Your task to perform on an android device: Go to privacy settings Image 0: 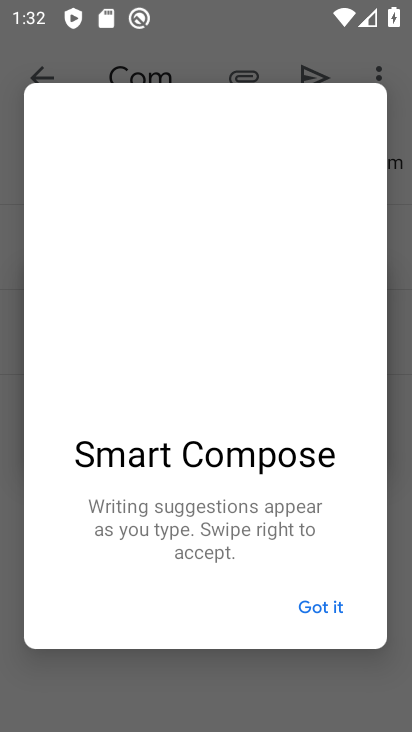
Step 0: press home button
Your task to perform on an android device: Go to privacy settings Image 1: 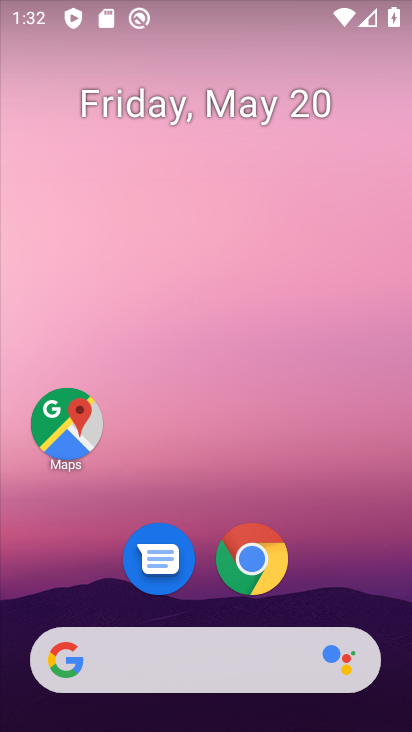
Step 1: drag from (322, 605) to (315, 60)
Your task to perform on an android device: Go to privacy settings Image 2: 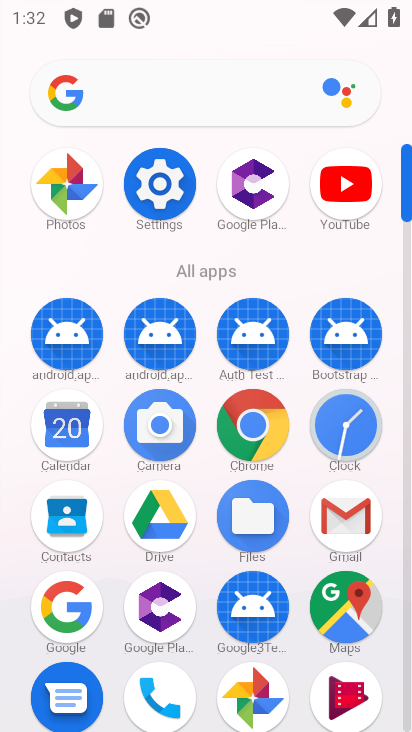
Step 2: click (152, 173)
Your task to perform on an android device: Go to privacy settings Image 3: 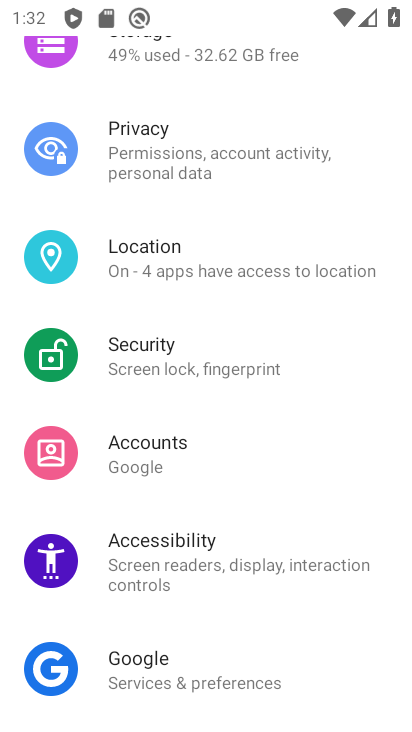
Step 3: click (195, 161)
Your task to perform on an android device: Go to privacy settings Image 4: 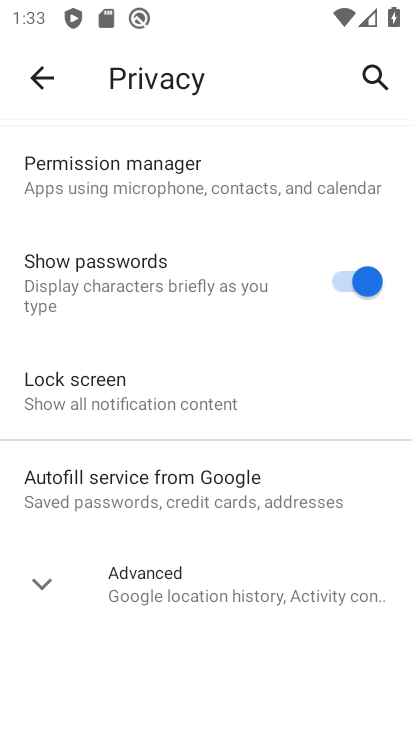
Step 4: task complete